Your task to perform on an android device: Go to privacy settings Image 0: 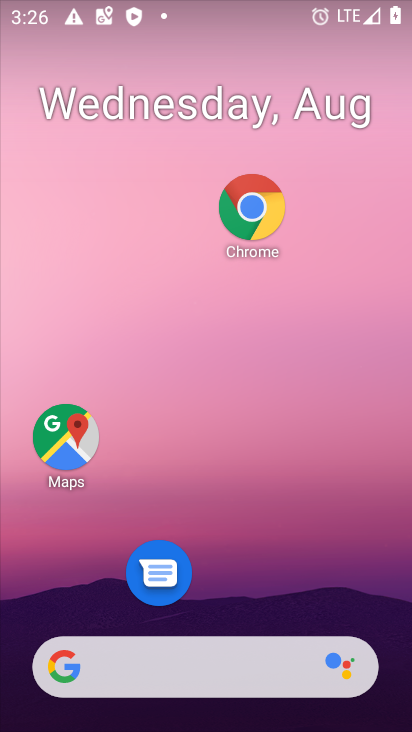
Step 0: click (291, 21)
Your task to perform on an android device: Go to privacy settings Image 1: 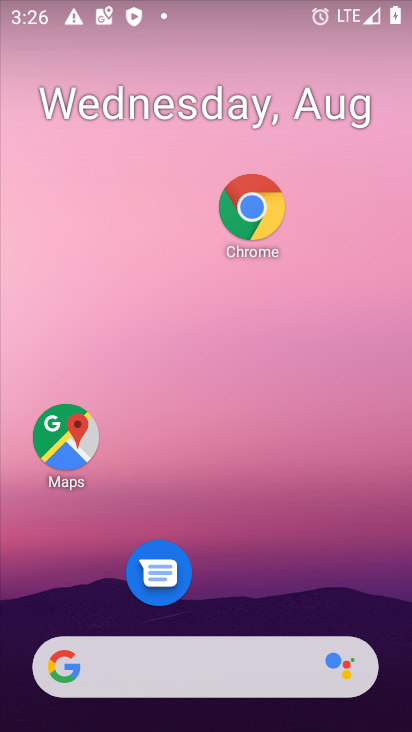
Step 1: drag from (245, 287) to (251, 116)
Your task to perform on an android device: Go to privacy settings Image 2: 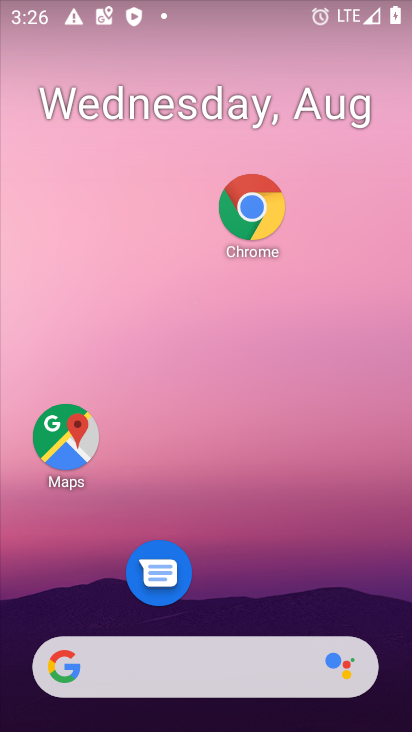
Step 2: drag from (223, 692) to (265, 104)
Your task to perform on an android device: Go to privacy settings Image 3: 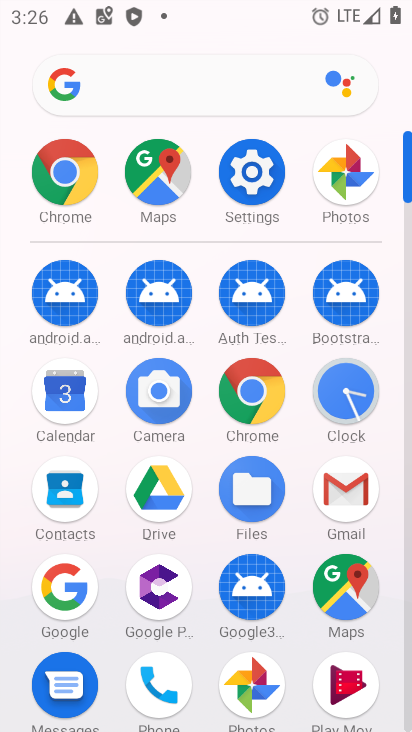
Step 3: click (262, 181)
Your task to perform on an android device: Go to privacy settings Image 4: 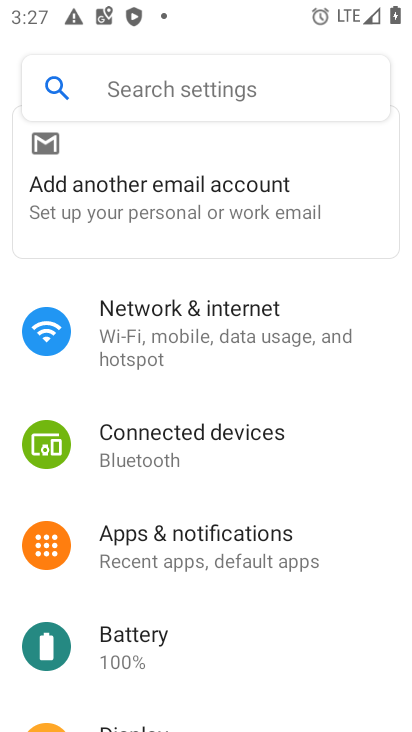
Step 4: drag from (184, 584) to (171, 291)
Your task to perform on an android device: Go to privacy settings Image 5: 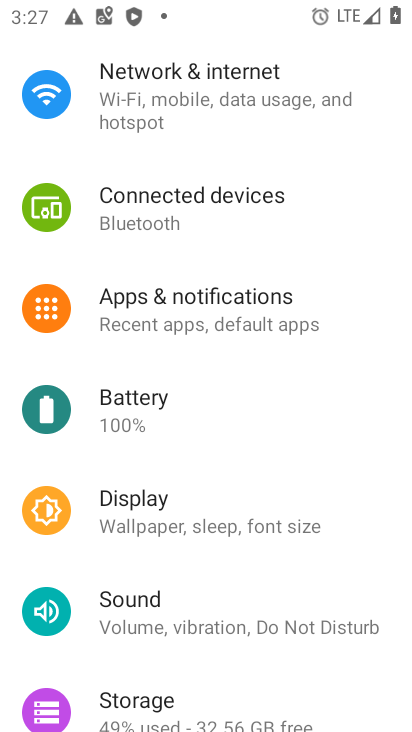
Step 5: drag from (244, 587) to (246, 301)
Your task to perform on an android device: Go to privacy settings Image 6: 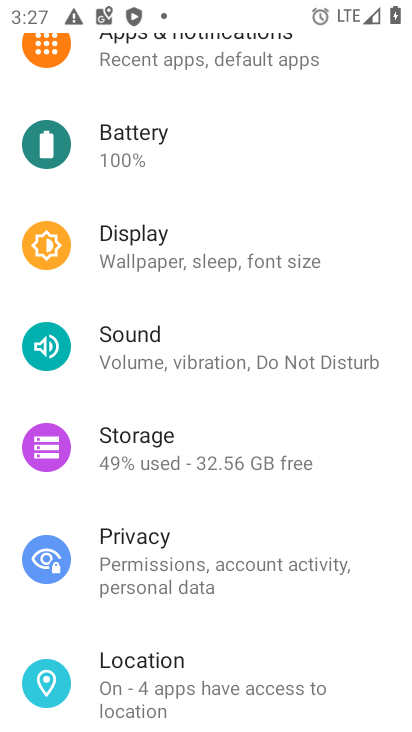
Step 6: drag from (216, 549) to (222, 244)
Your task to perform on an android device: Go to privacy settings Image 7: 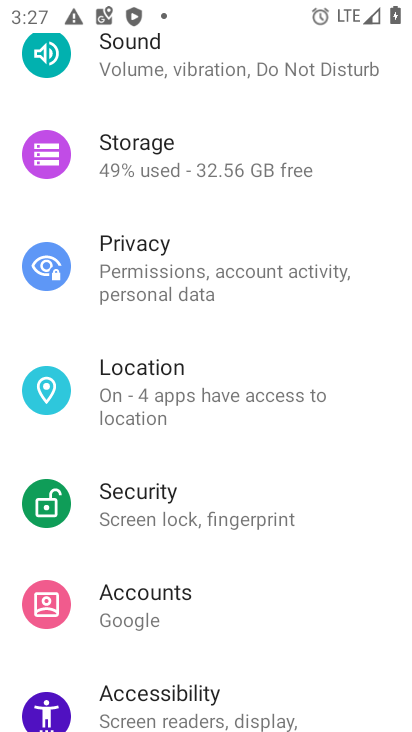
Step 7: click (195, 285)
Your task to perform on an android device: Go to privacy settings Image 8: 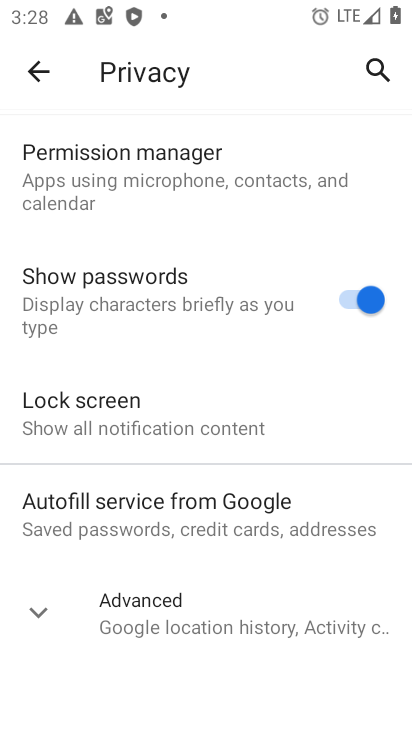
Step 8: task complete